Your task to perform on an android device: Open the stopwatch Image 0: 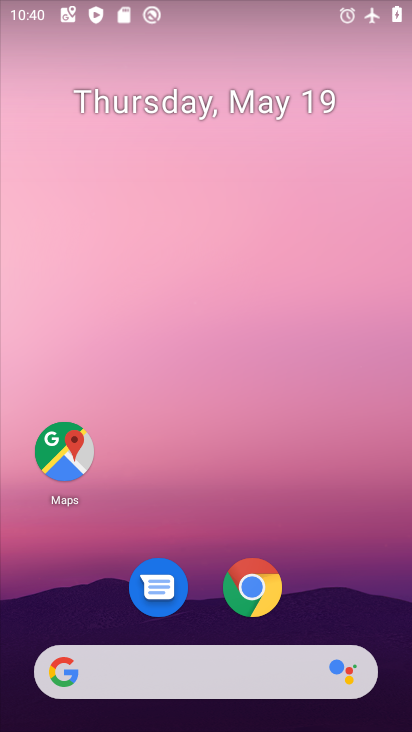
Step 0: drag from (350, 584) to (283, 132)
Your task to perform on an android device: Open the stopwatch Image 1: 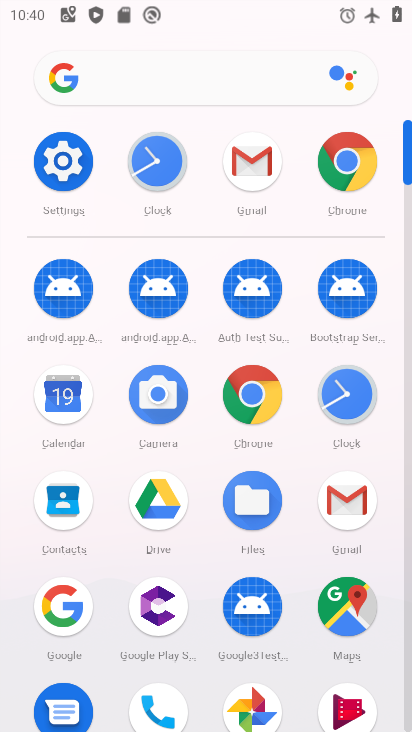
Step 1: click (351, 377)
Your task to perform on an android device: Open the stopwatch Image 2: 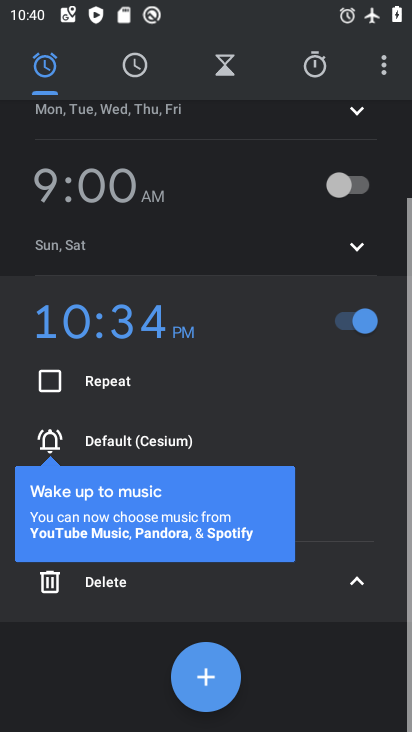
Step 2: click (326, 74)
Your task to perform on an android device: Open the stopwatch Image 3: 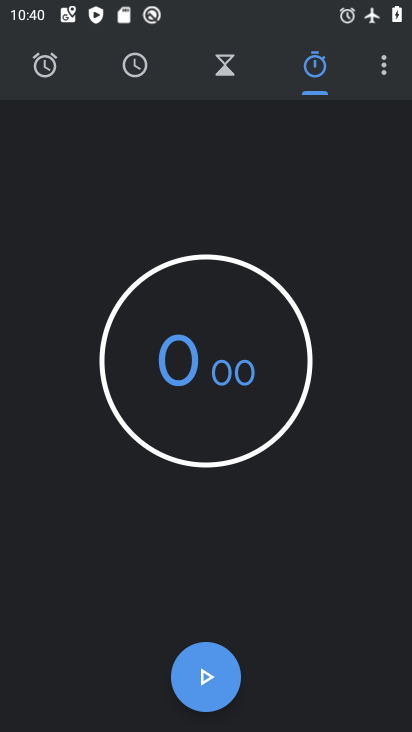
Step 3: click (179, 669)
Your task to perform on an android device: Open the stopwatch Image 4: 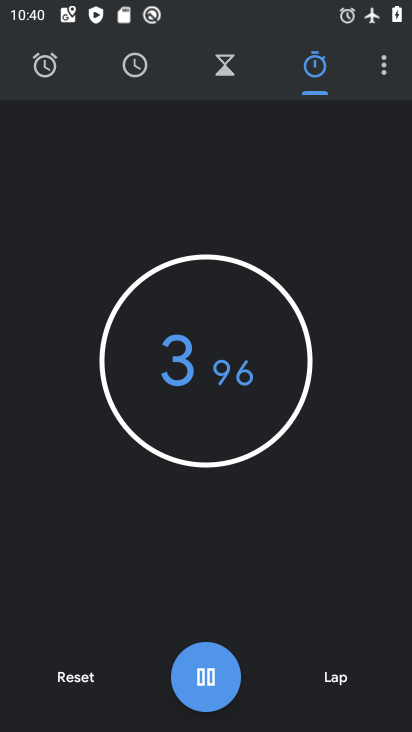
Step 4: click (220, 694)
Your task to perform on an android device: Open the stopwatch Image 5: 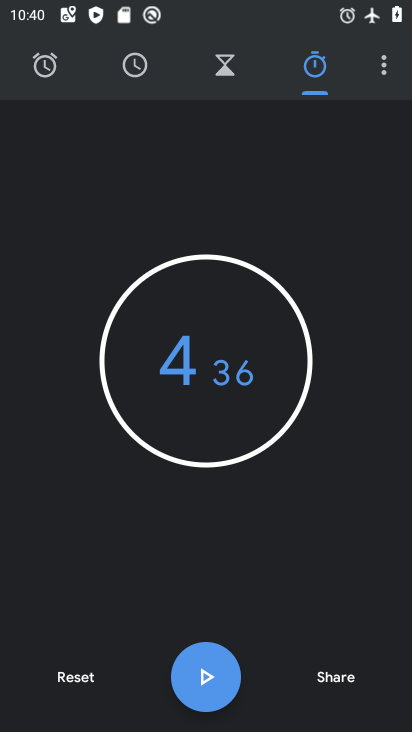
Step 5: task complete